Your task to perform on an android device: turn off priority inbox in the gmail app Image 0: 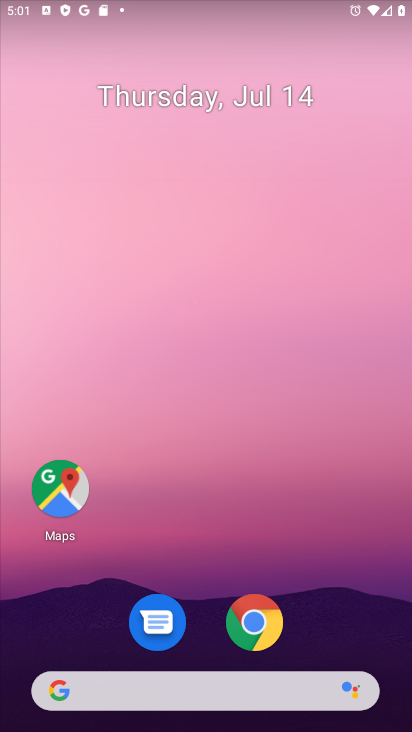
Step 0: drag from (223, 596) to (219, 206)
Your task to perform on an android device: turn off priority inbox in the gmail app Image 1: 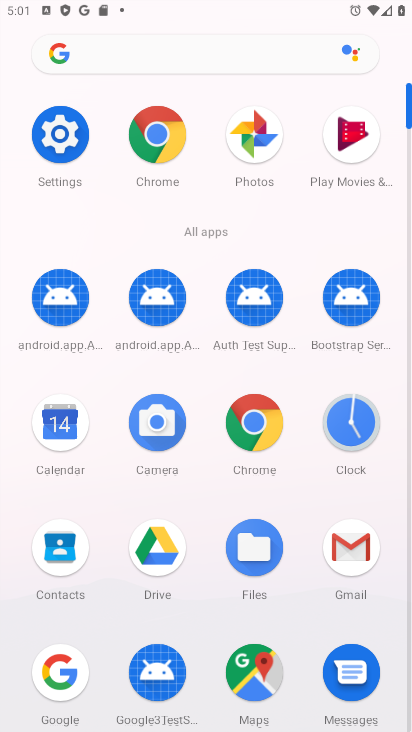
Step 1: click (362, 568)
Your task to perform on an android device: turn off priority inbox in the gmail app Image 2: 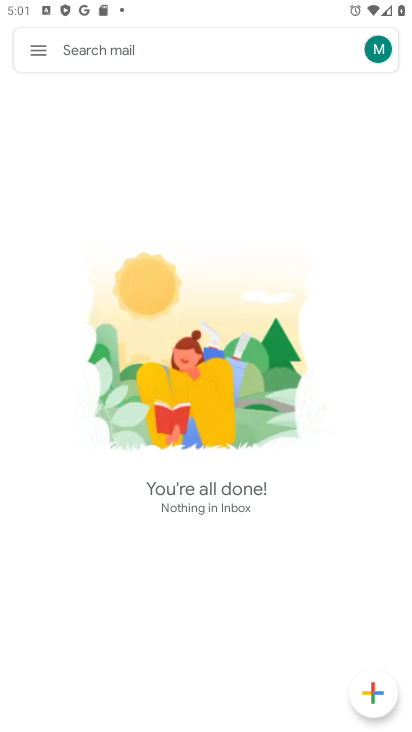
Step 2: click (20, 57)
Your task to perform on an android device: turn off priority inbox in the gmail app Image 3: 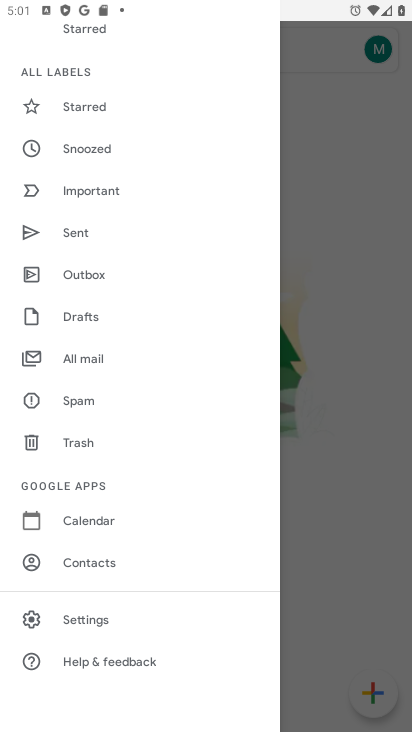
Step 3: click (91, 607)
Your task to perform on an android device: turn off priority inbox in the gmail app Image 4: 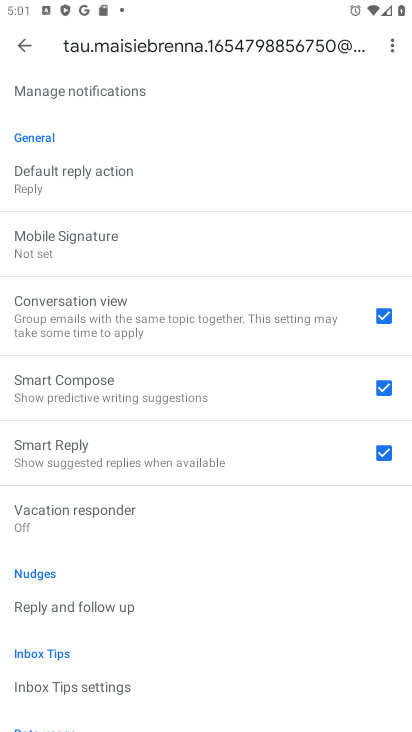
Step 4: drag from (229, 551) to (260, 69)
Your task to perform on an android device: turn off priority inbox in the gmail app Image 5: 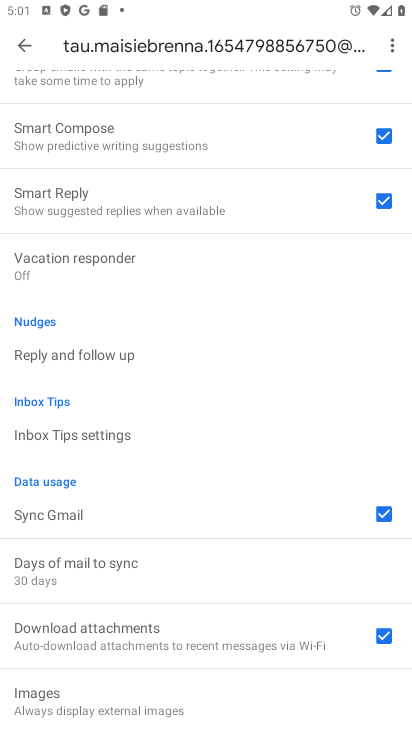
Step 5: drag from (194, 211) to (223, 664)
Your task to perform on an android device: turn off priority inbox in the gmail app Image 6: 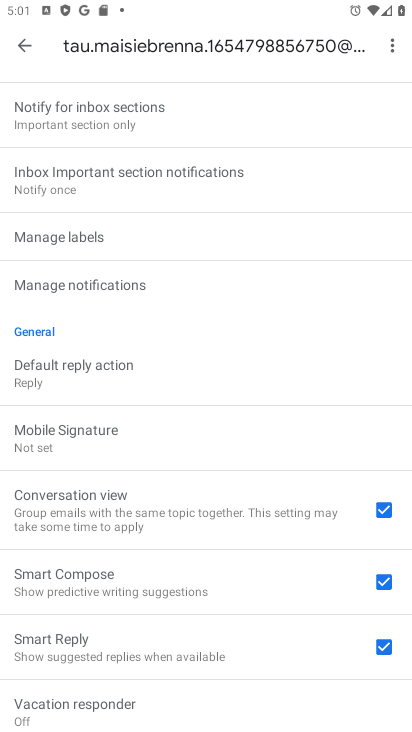
Step 6: drag from (176, 552) to (242, 188)
Your task to perform on an android device: turn off priority inbox in the gmail app Image 7: 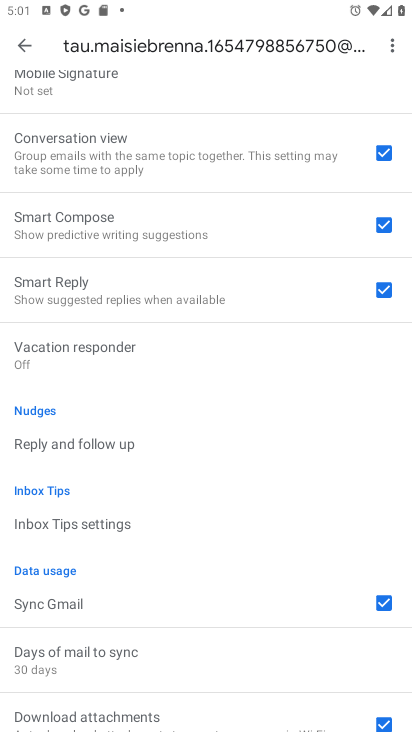
Step 7: drag from (196, 64) to (224, 513)
Your task to perform on an android device: turn off priority inbox in the gmail app Image 8: 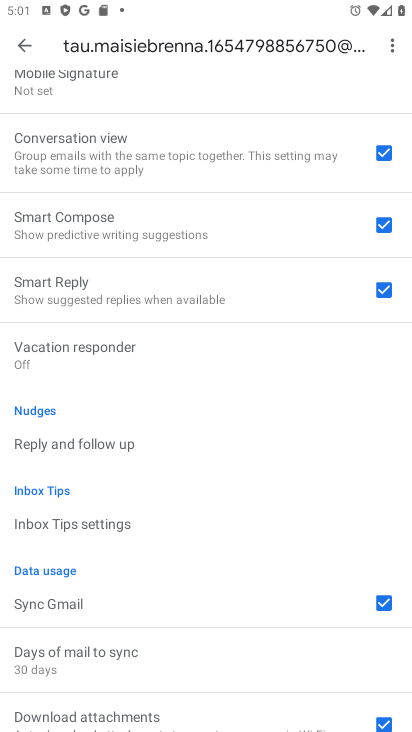
Step 8: drag from (176, 123) to (199, 510)
Your task to perform on an android device: turn off priority inbox in the gmail app Image 9: 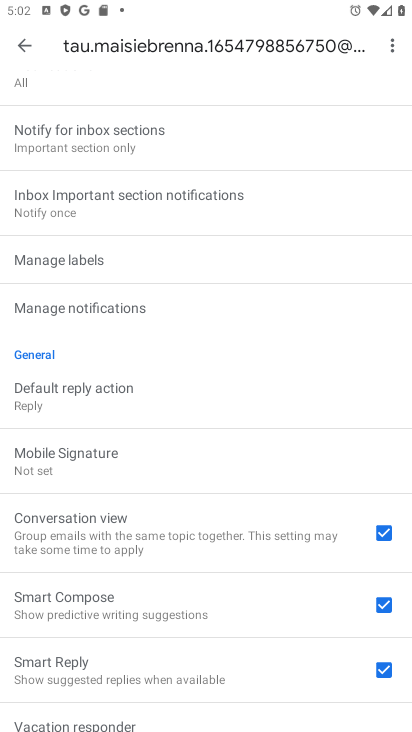
Step 9: drag from (121, 146) to (162, 608)
Your task to perform on an android device: turn off priority inbox in the gmail app Image 10: 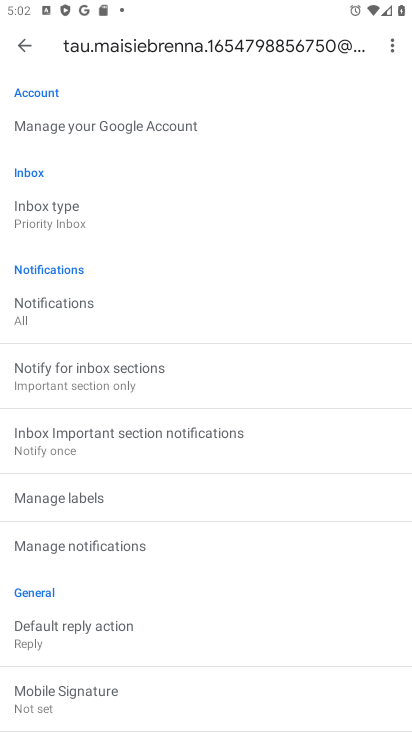
Step 10: click (24, 219)
Your task to perform on an android device: turn off priority inbox in the gmail app Image 11: 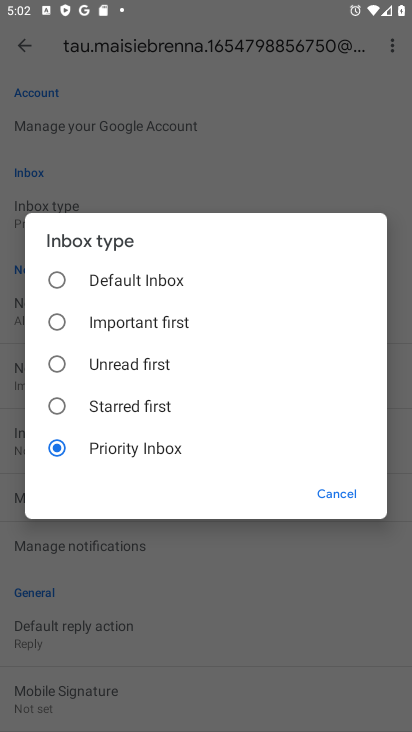
Step 11: click (136, 288)
Your task to perform on an android device: turn off priority inbox in the gmail app Image 12: 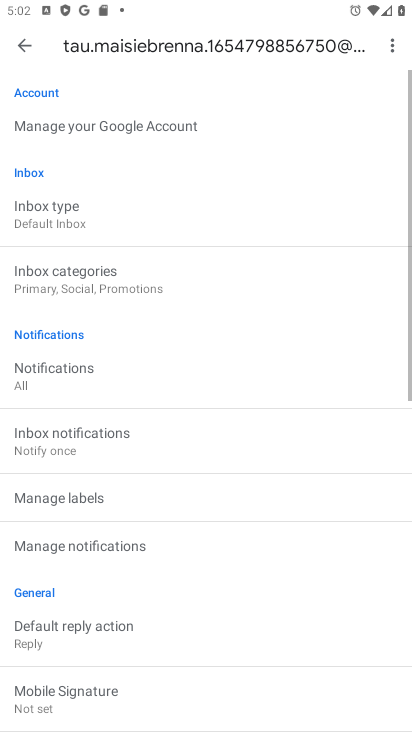
Step 12: task complete